Your task to perform on an android device: Open the calendar and show me this week's events? Image 0: 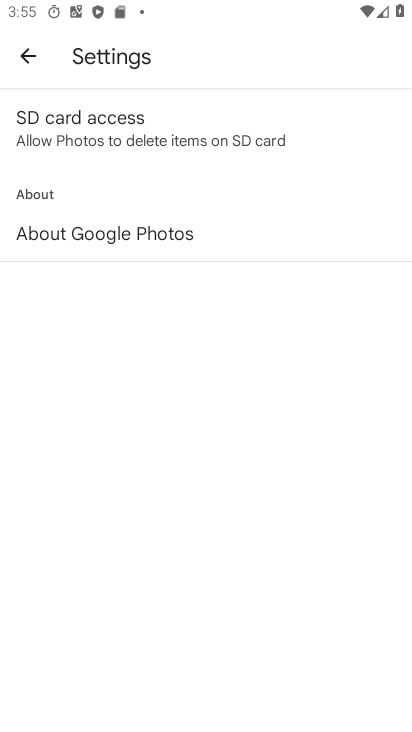
Step 0: click (18, 54)
Your task to perform on an android device: Open the calendar and show me this week's events? Image 1: 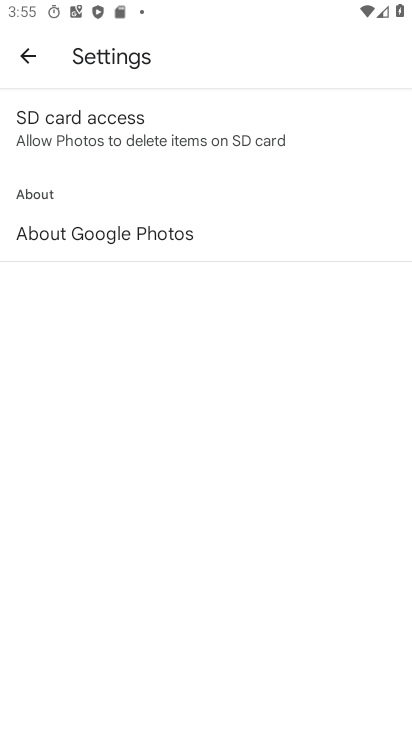
Step 1: press home button
Your task to perform on an android device: Open the calendar and show me this week's events? Image 2: 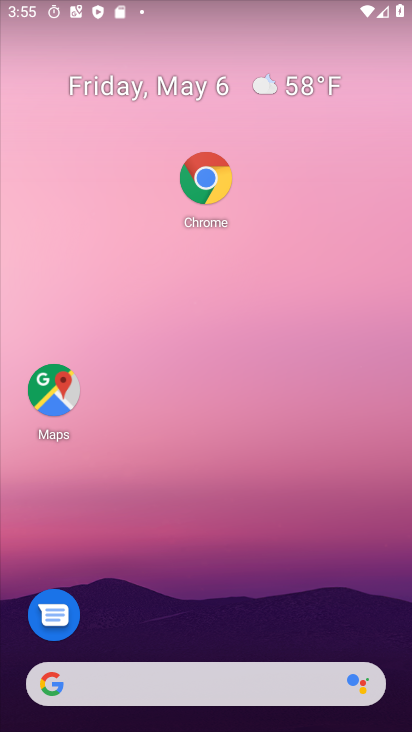
Step 2: drag from (395, 624) to (214, 1)
Your task to perform on an android device: Open the calendar and show me this week's events? Image 3: 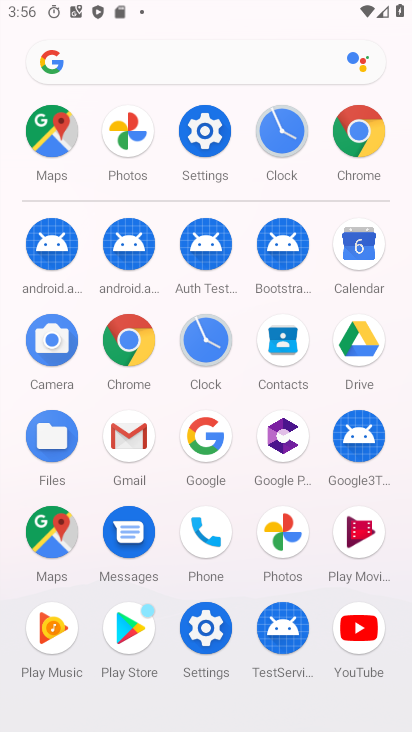
Step 3: click (368, 244)
Your task to perform on an android device: Open the calendar and show me this week's events? Image 4: 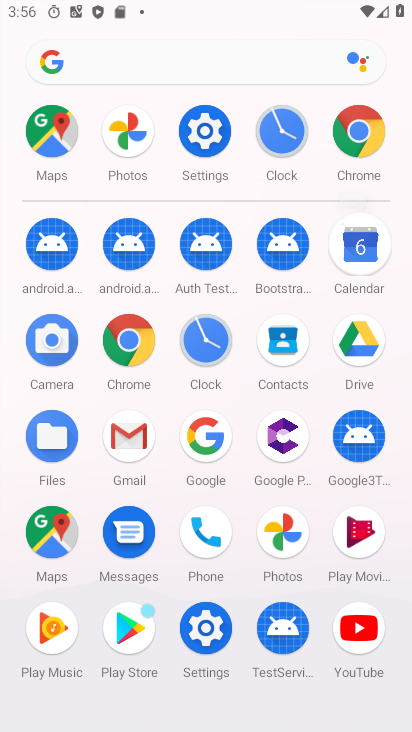
Step 4: click (367, 244)
Your task to perform on an android device: Open the calendar and show me this week's events? Image 5: 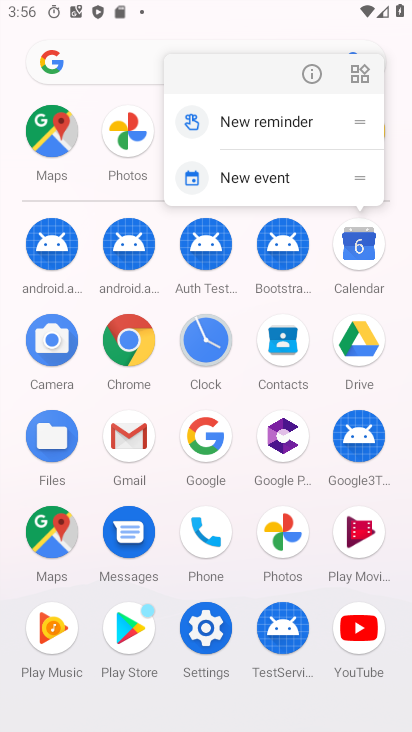
Step 5: click (364, 244)
Your task to perform on an android device: Open the calendar and show me this week's events? Image 6: 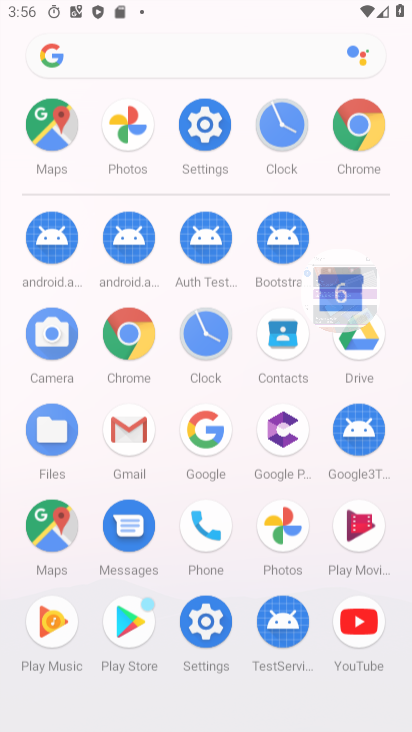
Step 6: click (362, 243)
Your task to perform on an android device: Open the calendar and show me this week's events? Image 7: 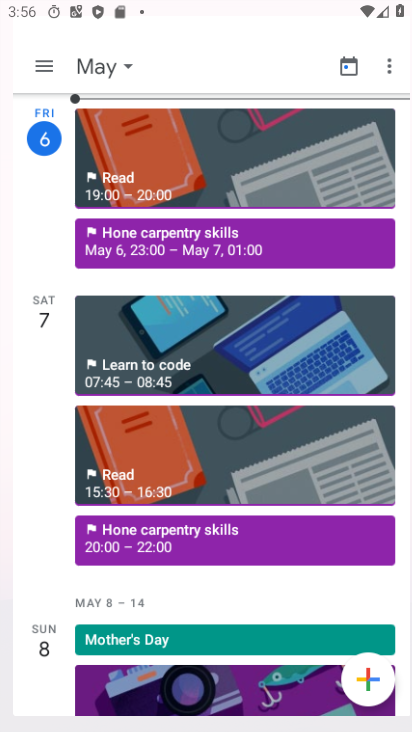
Step 7: click (362, 243)
Your task to perform on an android device: Open the calendar and show me this week's events? Image 8: 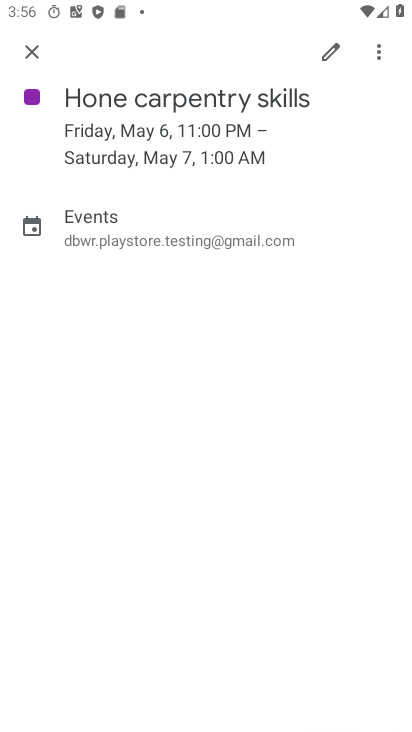
Step 8: task complete